Your task to perform on an android device: turn off sleep mode Image 0: 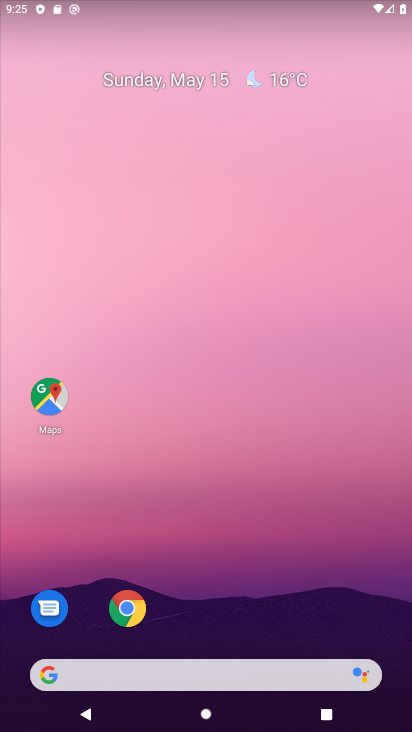
Step 0: drag from (136, 567) to (130, 96)
Your task to perform on an android device: turn off sleep mode Image 1: 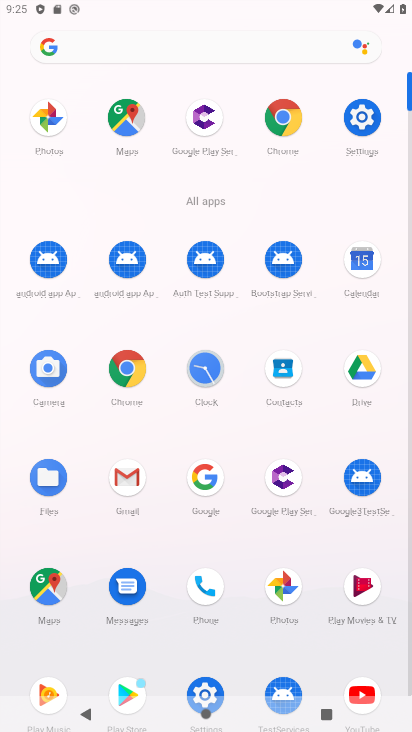
Step 1: click (365, 120)
Your task to perform on an android device: turn off sleep mode Image 2: 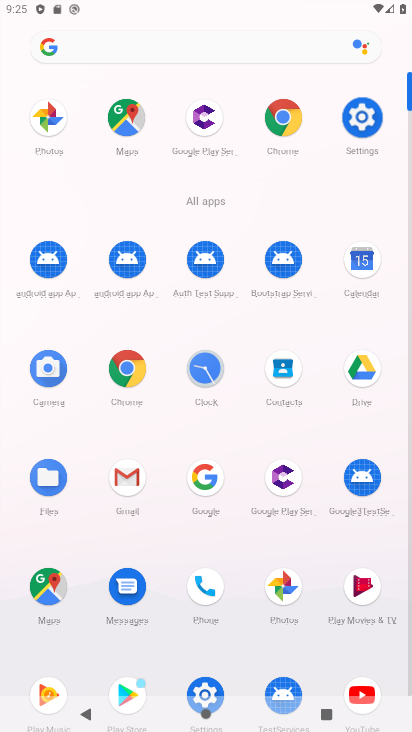
Step 2: click (365, 120)
Your task to perform on an android device: turn off sleep mode Image 3: 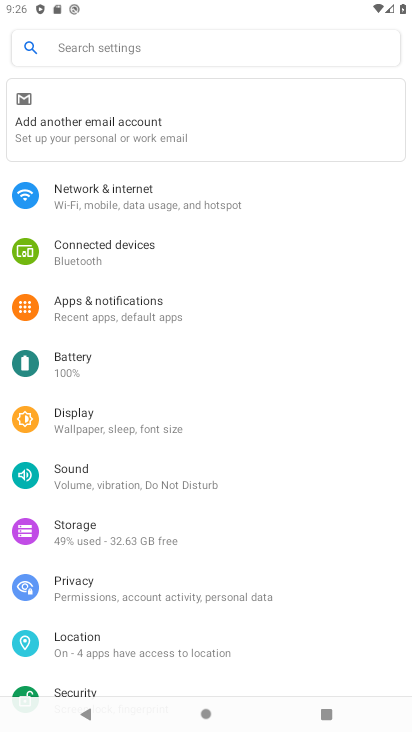
Step 3: click (97, 425)
Your task to perform on an android device: turn off sleep mode Image 4: 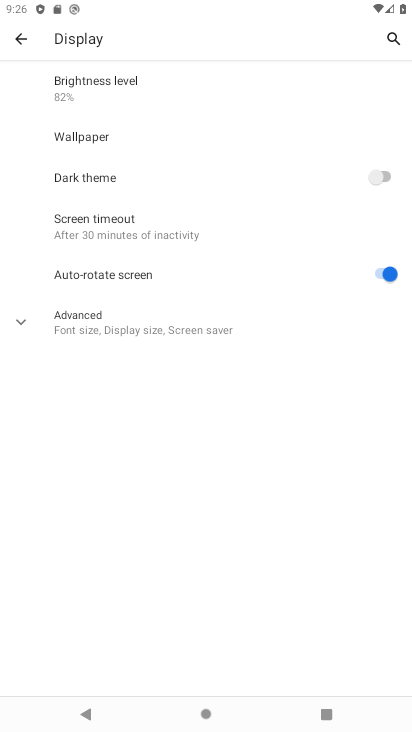
Step 4: click (99, 235)
Your task to perform on an android device: turn off sleep mode Image 5: 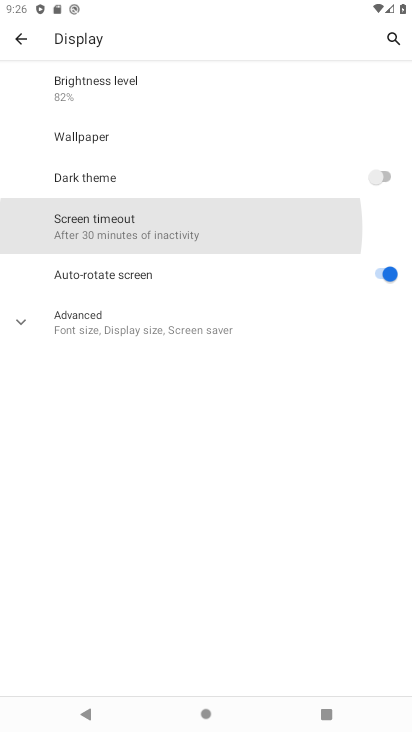
Step 5: click (98, 235)
Your task to perform on an android device: turn off sleep mode Image 6: 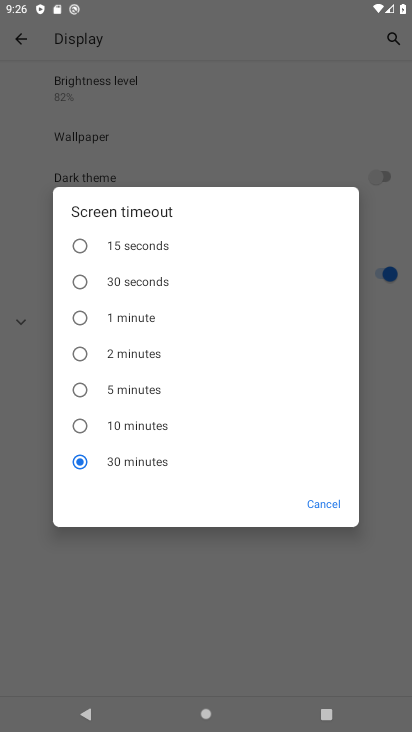
Step 6: task complete